Your task to perform on an android device: clear history in the chrome app Image 0: 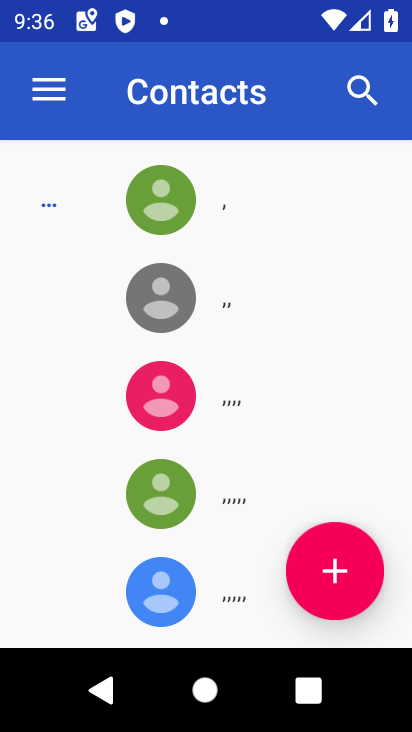
Step 0: press home button
Your task to perform on an android device: clear history in the chrome app Image 1: 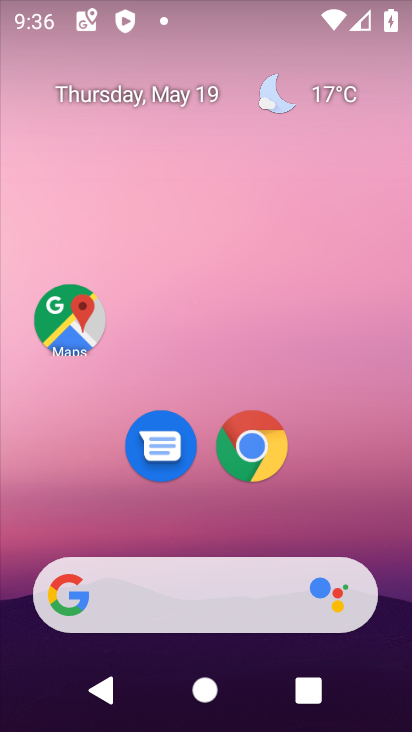
Step 1: click (266, 452)
Your task to perform on an android device: clear history in the chrome app Image 2: 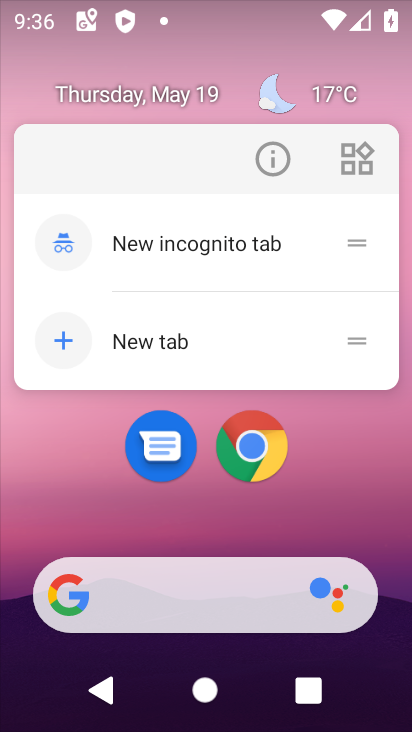
Step 2: click (264, 455)
Your task to perform on an android device: clear history in the chrome app Image 3: 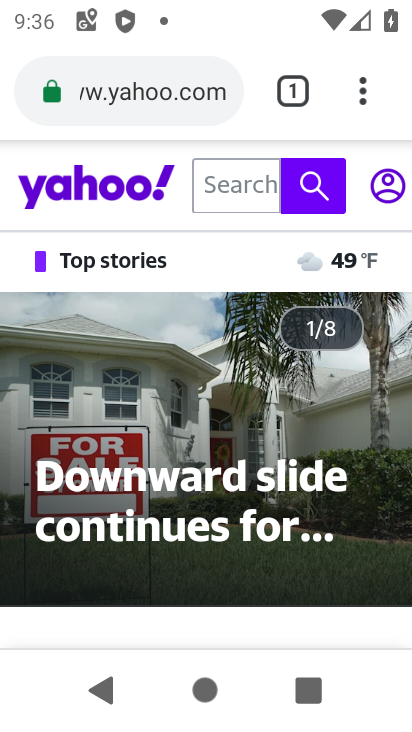
Step 3: click (366, 103)
Your task to perform on an android device: clear history in the chrome app Image 4: 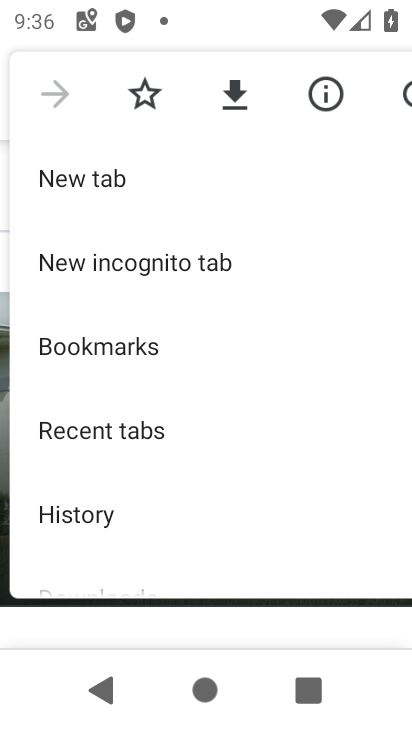
Step 4: click (99, 519)
Your task to perform on an android device: clear history in the chrome app Image 5: 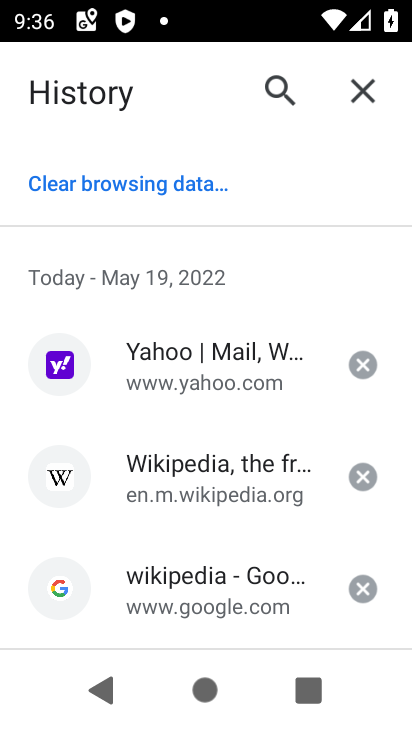
Step 5: click (125, 176)
Your task to perform on an android device: clear history in the chrome app Image 6: 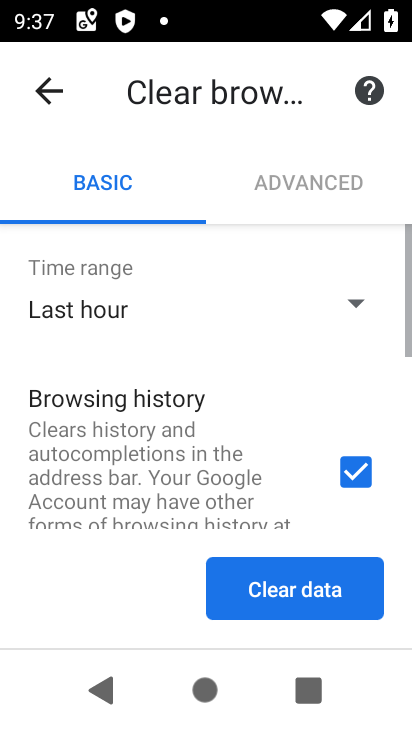
Step 6: drag from (269, 502) to (300, 124)
Your task to perform on an android device: clear history in the chrome app Image 7: 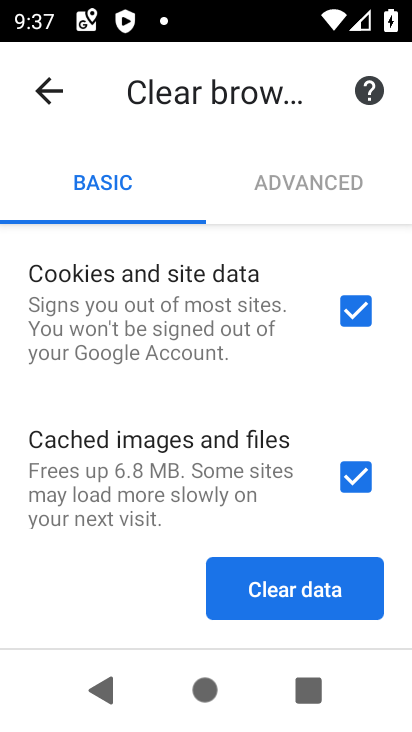
Step 7: drag from (261, 463) to (272, 268)
Your task to perform on an android device: clear history in the chrome app Image 8: 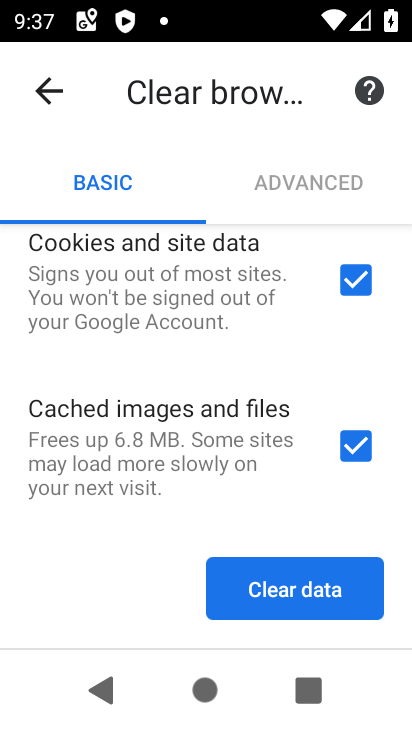
Step 8: click (279, 593)
Your task to perform on an android device: clear history in the chrome app Image 9: 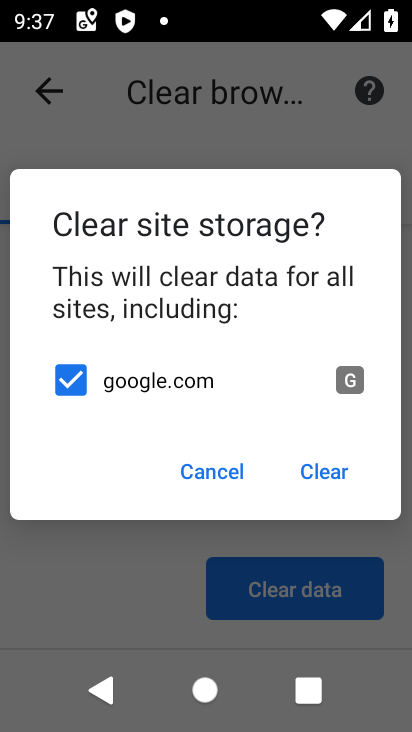
Step 9: click (319, 474)
Your task to perform on an android device: clear history in the chrome app Image 10: 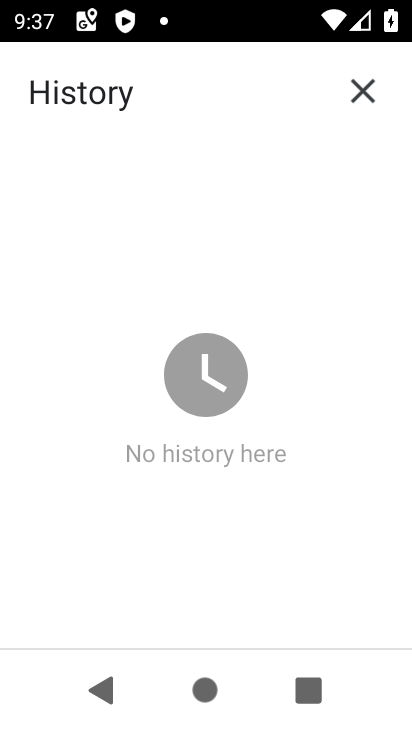
Step 10: task complete